Your task to perform on an android device: Go to battery settings Image 0: 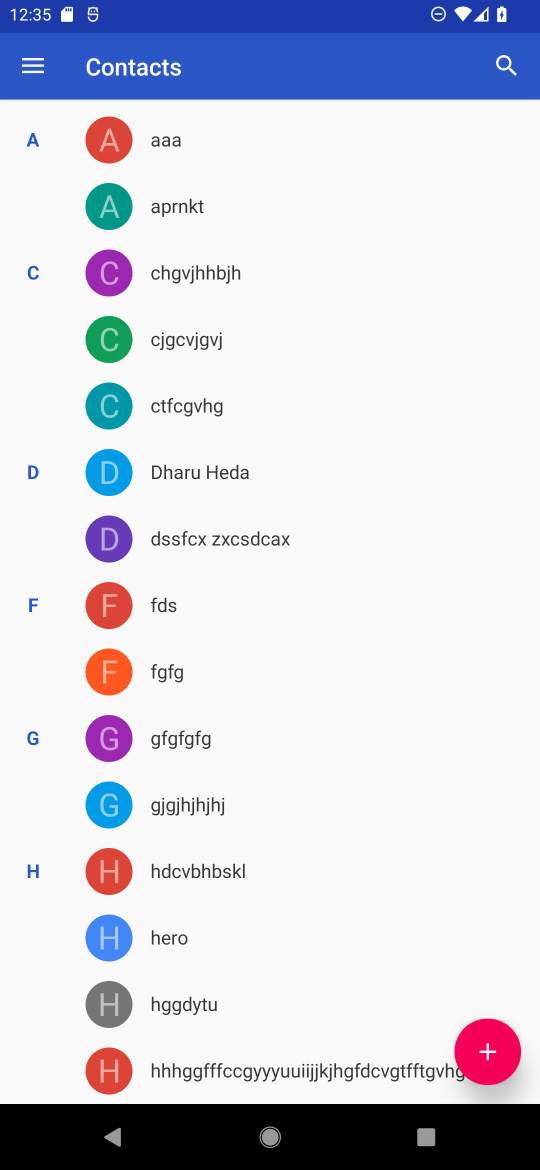
Step 0: press home button
Your task to perform on an android device: Go to battery settings Image 1: 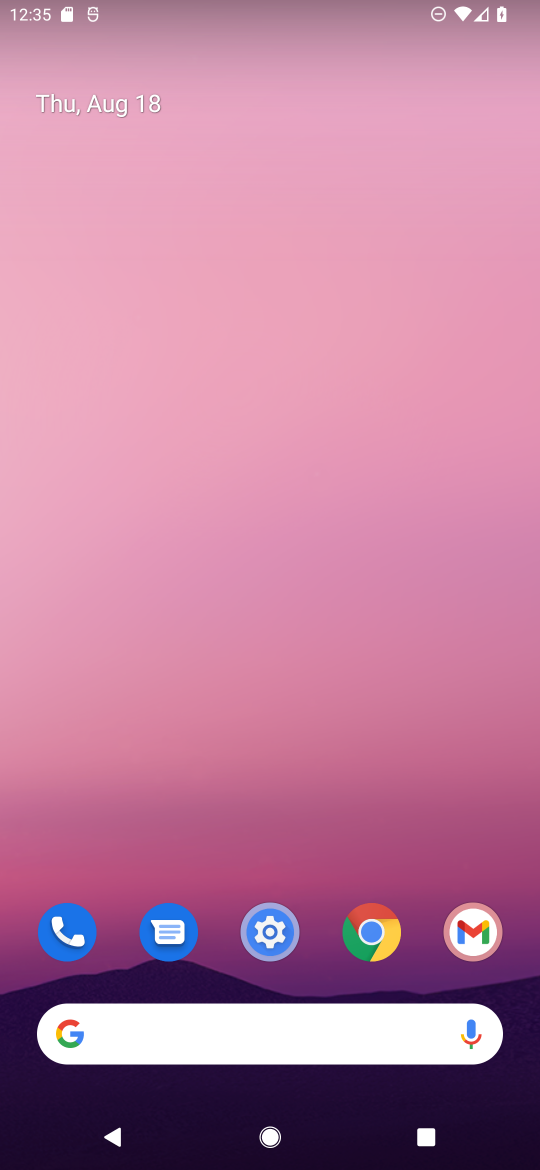
Step 1: click (268, 933)
Your task to perform on an android device: Go to battery settings Image 2: 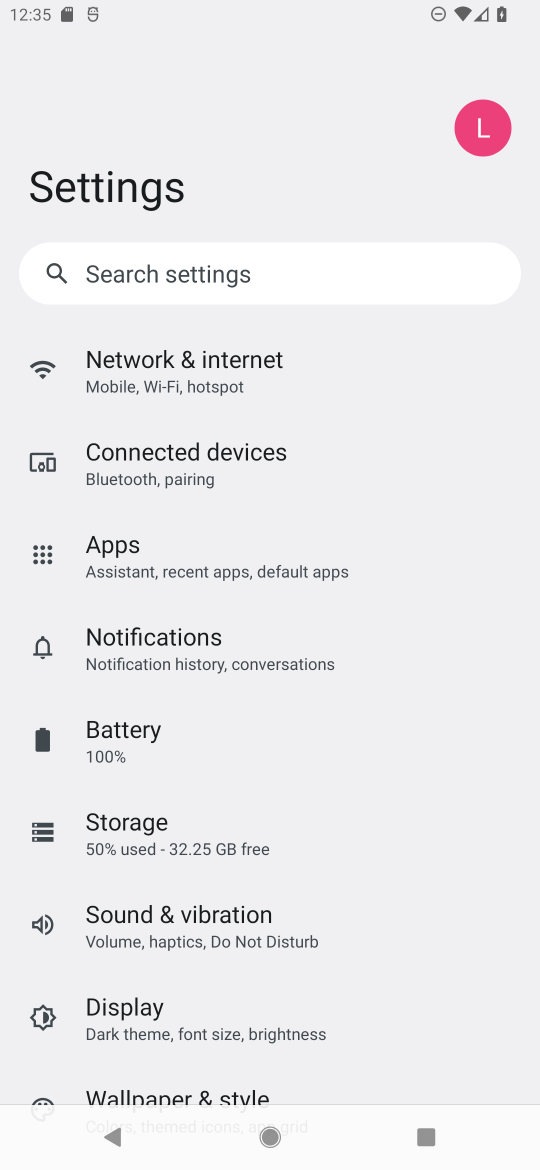
Step 2: click (133, 732)
Your task to perform on an android device: Go to battery settings Image 3: 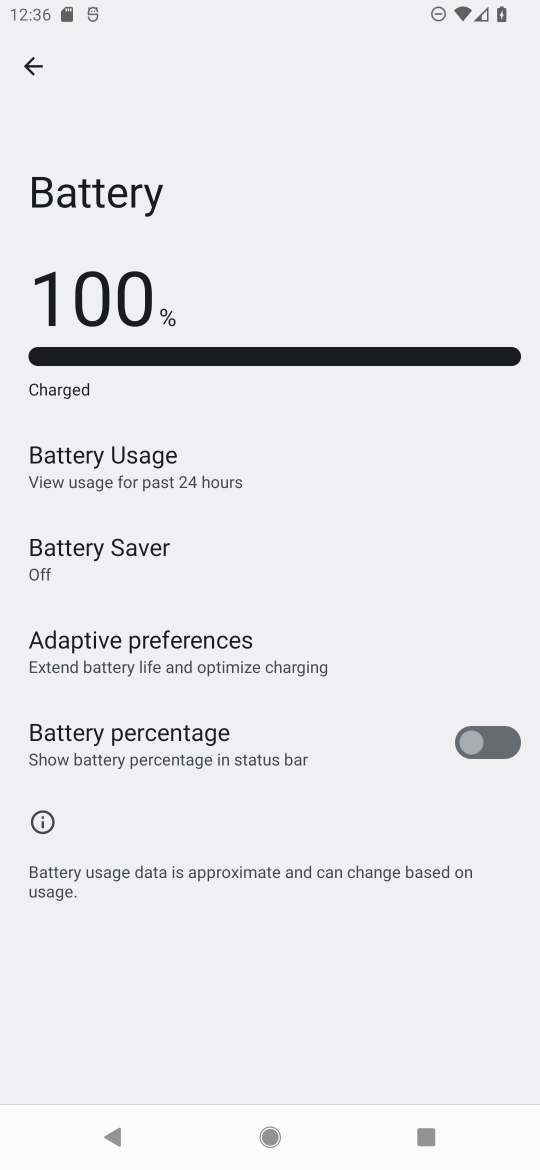
Step 3: task complete